Your task to perform on an android device: check the backup settings in the google photos Image 0: 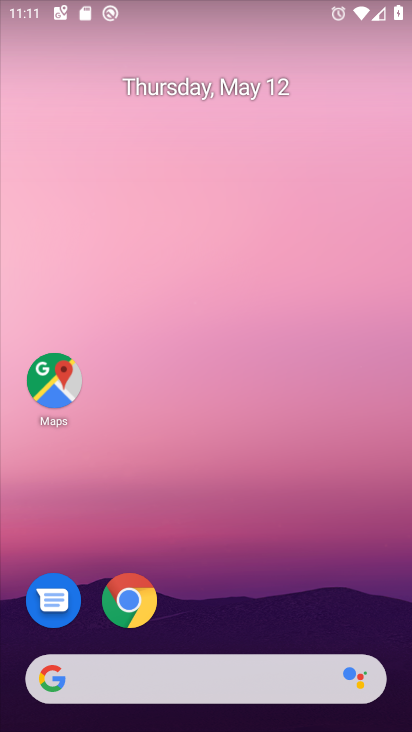
Step 0: drag from (214, 629) to (93, 173)
Your task to perform on an android device: check the backup settings in the google photos Image 1: 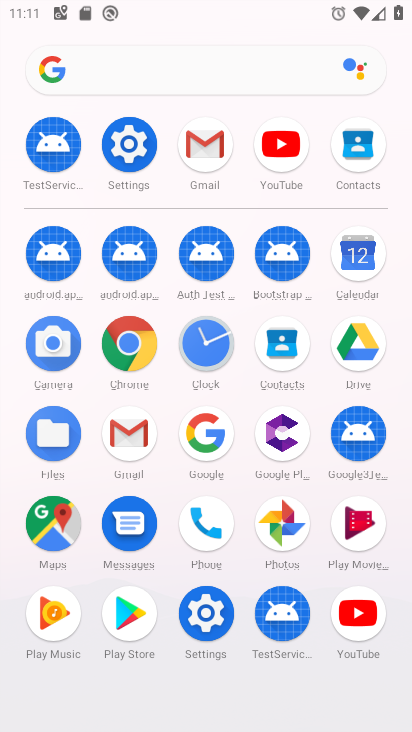
Step 1: click (273, 532)
Your task to perform on an android device: check the backup settings in the google photos Image 2: 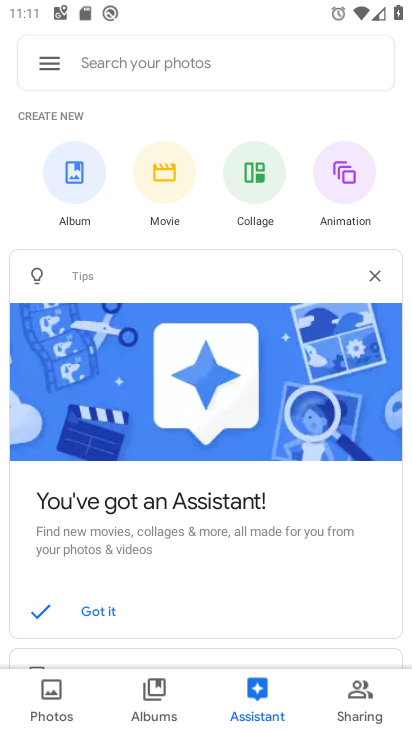
Step 2: click (47, 63)
Your task to perform on an android device: check the backup settings in the google photos Image 3: 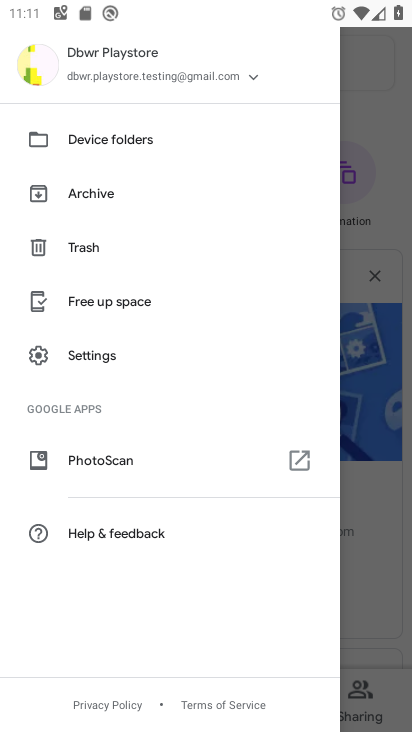
Step 3: click (72, 353)
Your task to perform on an android device: check the backup settings in the google photos Image 4: 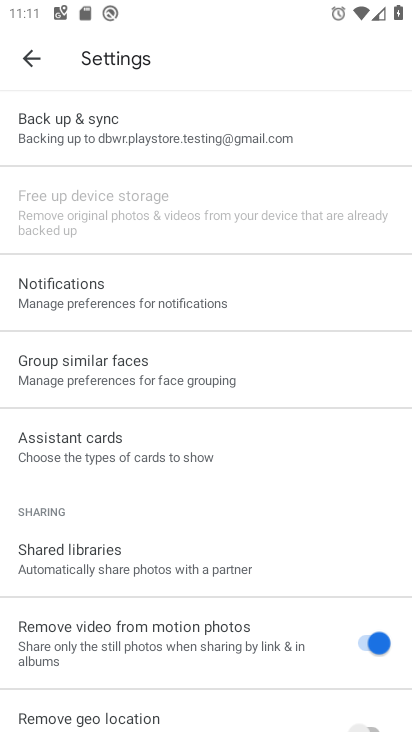
Step 4: click (99, 137)
Your task to perform on an android device: check the backup settings in the google photos Image 5: 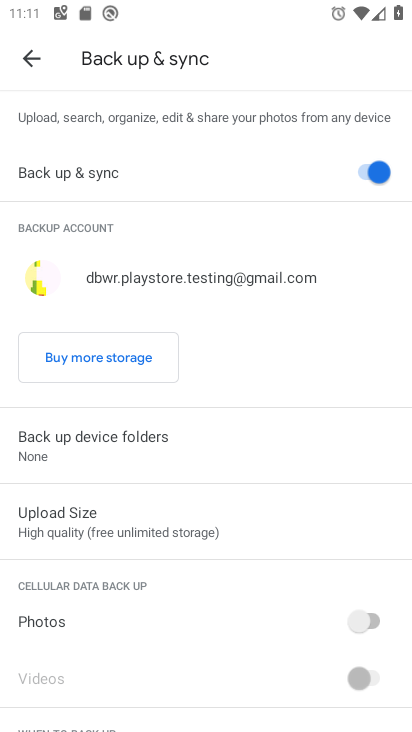
Step 5: task complete